Your task to perform on an android device: Go to battery settings Image 0: 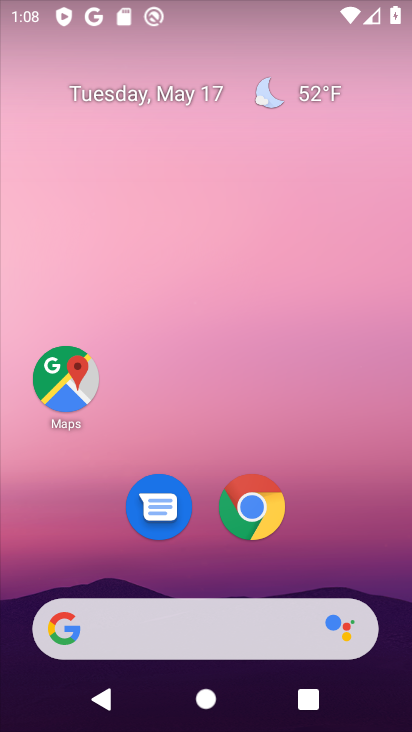
Step 0: drag from (186, 559) to (183, 68)
Your task to perform on an android device: Go to battery settings Image 1: 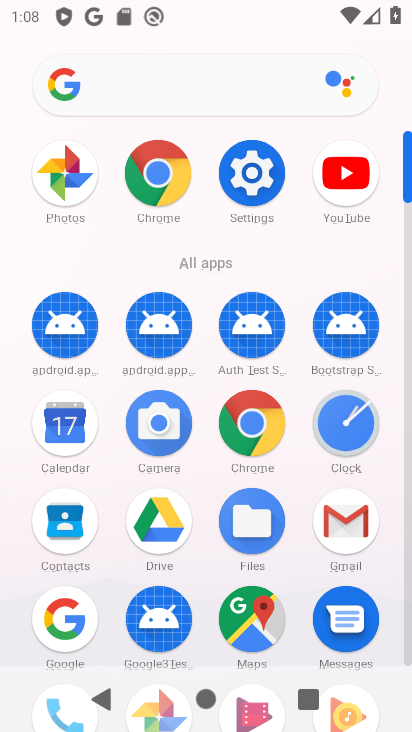
Step 1: click (249, 165)
Your task to perform on an android device: Go to battery settings Image 2: 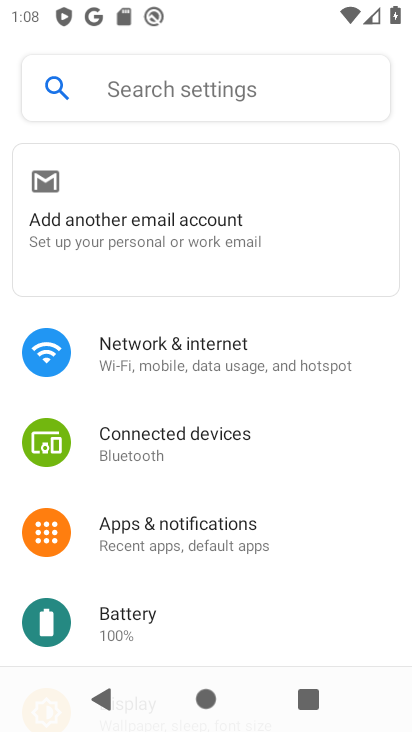
Step 2: click (184, 626)
Your task to perform on an android device: Go to battery settings Image 3: 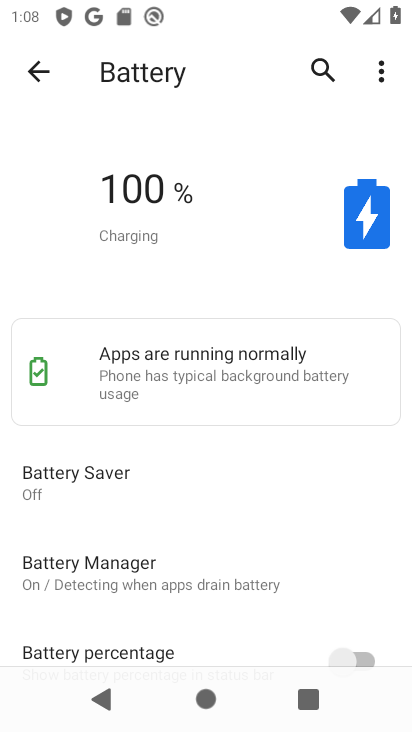
Step 3: task complete